Your task to perform on an android device: Do I have any events tomorrow? Image 0: 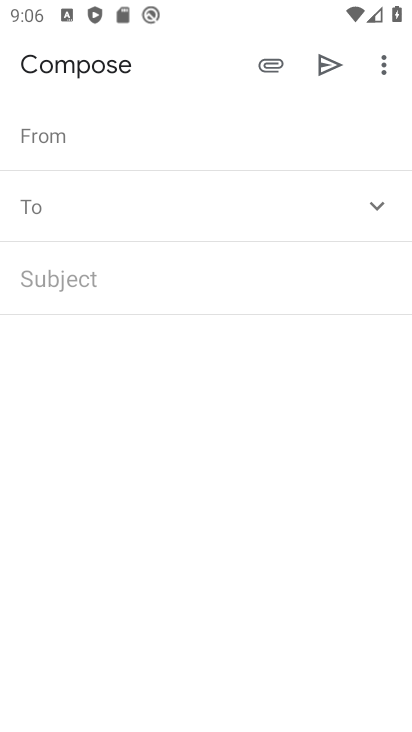
Step 0: drag from (363, 584) to (407, 328)
Your task to perform on an android device: Do I have any events tomorrow? Image 1: 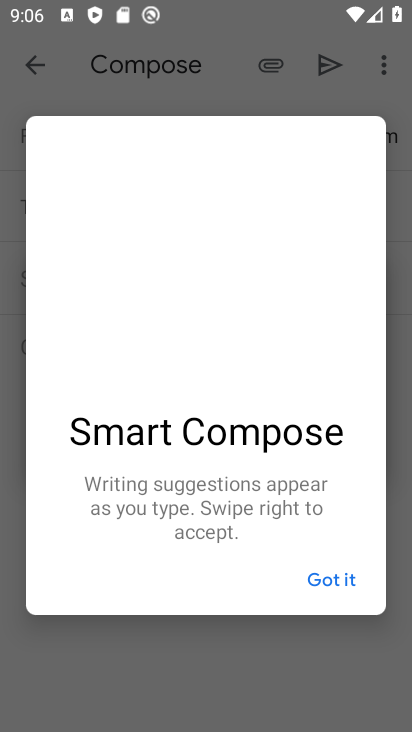
Step 1: press home button
Your task to perform on an android device: Do I have any events tomorrow? Image 2: 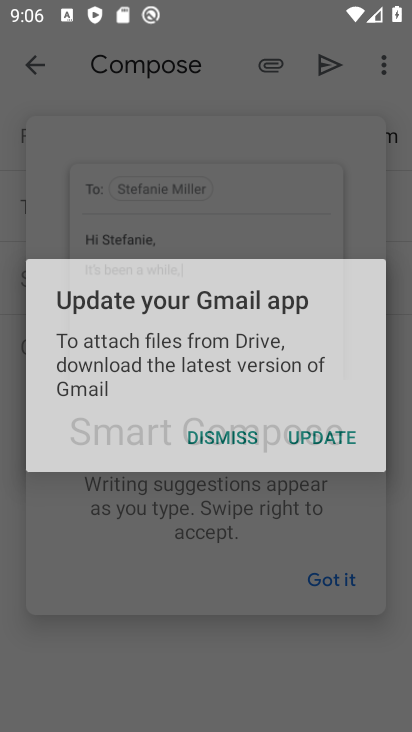
Step 2: drag from (407, 328) to (375, 249)
Your task to perform on an android device: Do I have any events tomorrow? Image 3: 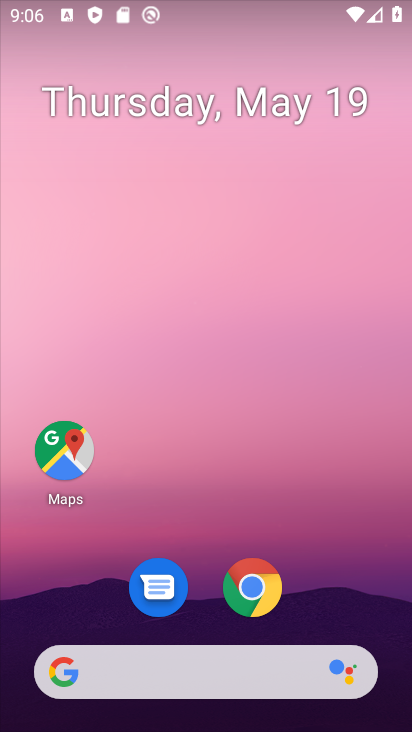
Step 3: drag from (316, 274) to (322, 5)
Your task to perform on an android device: Do I have any events tomorrow? Image 4: 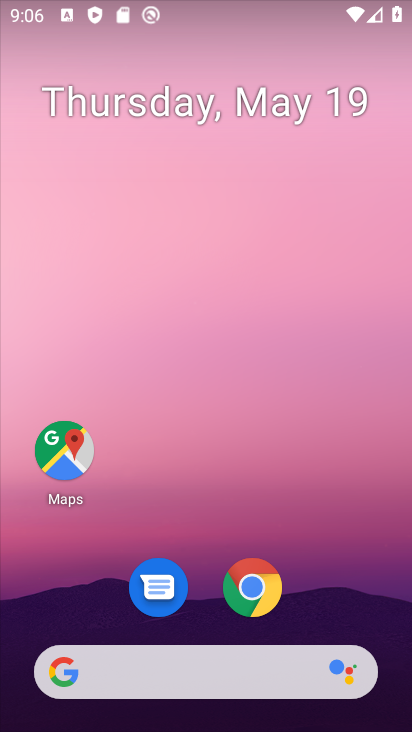
Step 4: drag from (357, 563) to (333, 28)
Your task to perform on an android device: Do I have any events tomorrow? Image 5: 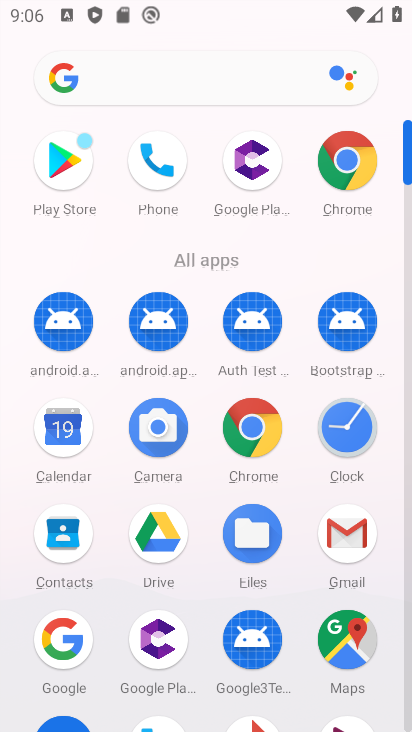
Step 5: click (356, 438)
Your task to perform on an android device: Do I have any events tomorrow? Image 6: 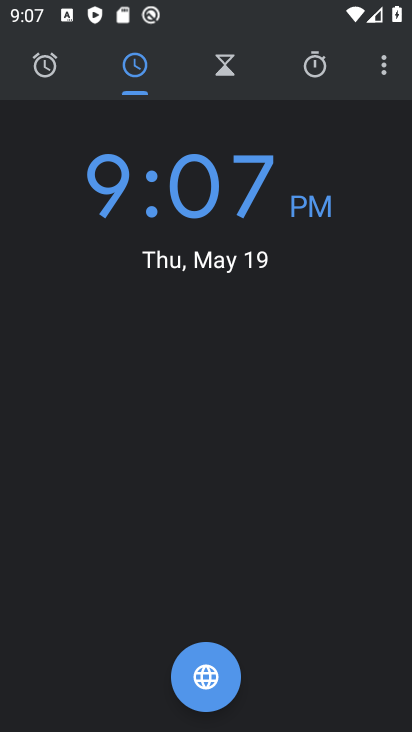
Step 6: press home button
Your task to perform on an android device: Do I have any events tomorrow? Image 7: 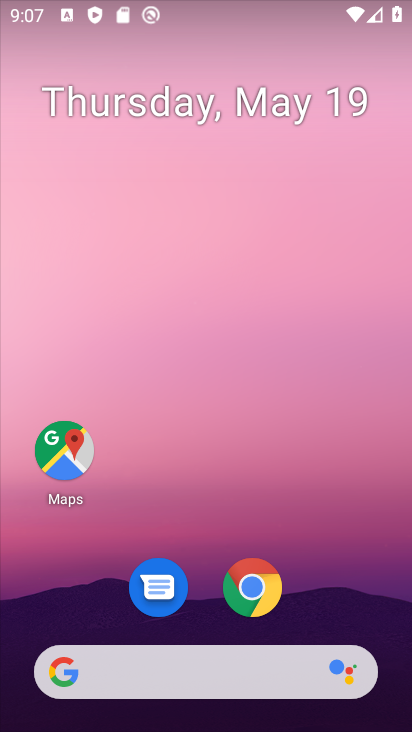
Step 7: drag from (362, 569) to (351, 60)
Your task to perform on an android device: Do I have any events tomorrow? Image 8: 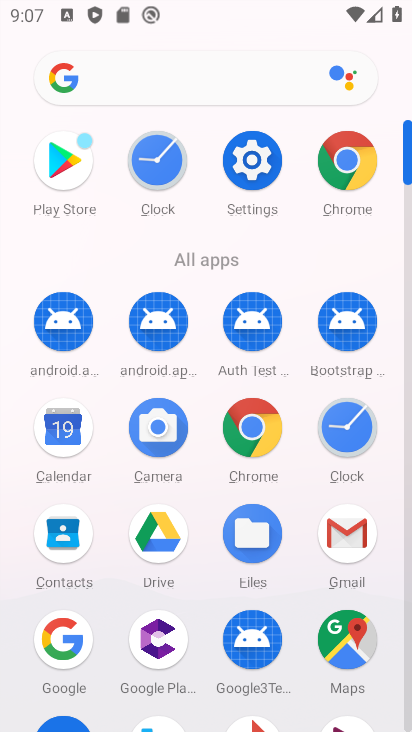
Step 8: click (49, 456)
Your task to perform on an android device: Do I have any events tomorrow? Image 9: 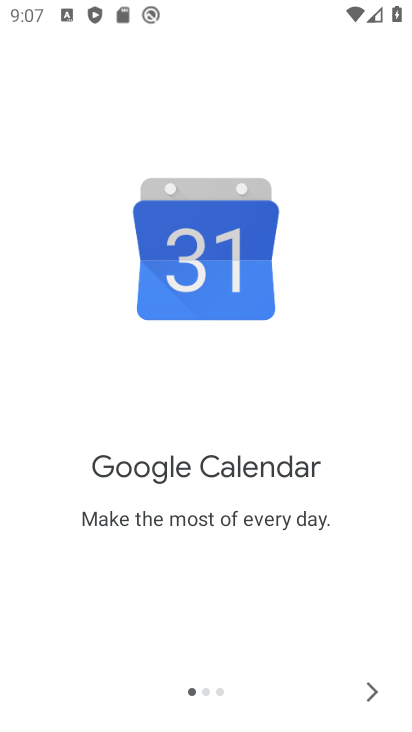
Step 9: click (363, 655)
Your task to perform on an android device: Do I have any events tomorrow? Image 10: 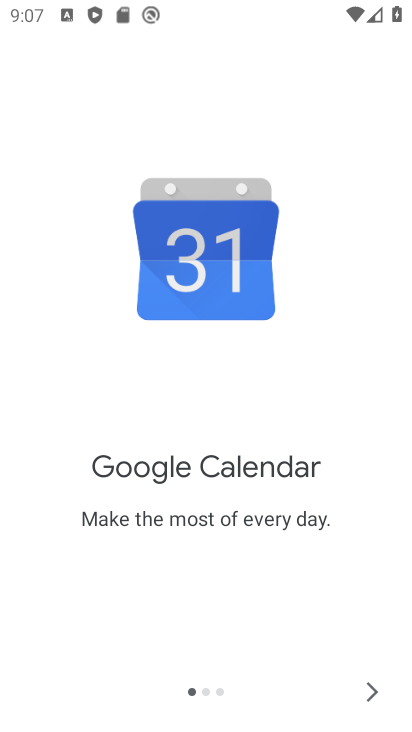
Step 10: click (365, 679)
Your task to perform on an android device: Do I have any events tomorrow? Image 11: 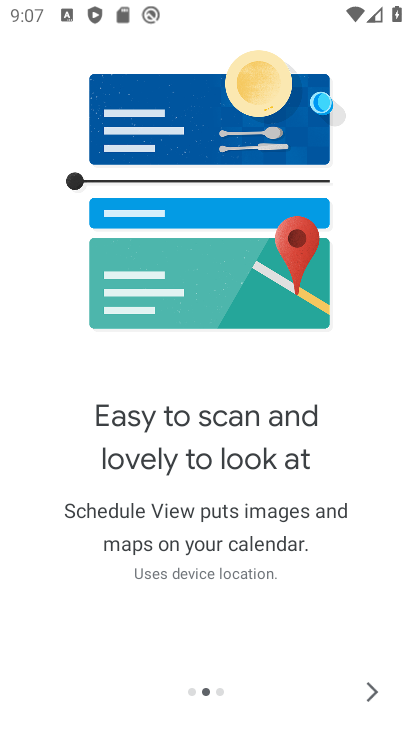
Step 11: click (382, 702)
Your task to perform on an android device: Do I have any events tomorrow? Image 12: 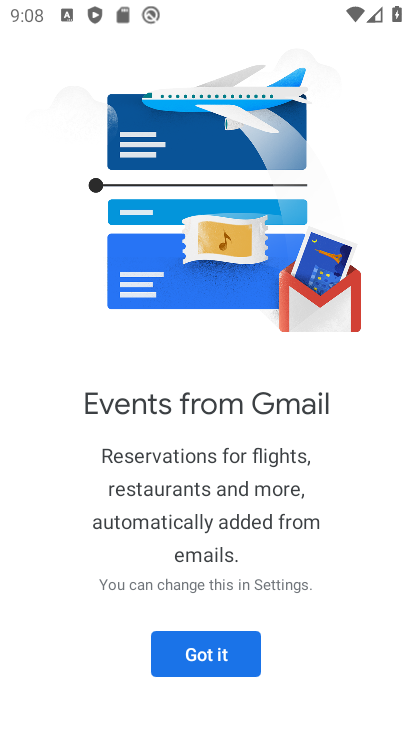
Step 12: click (204, 649)
Your task to perform on an android device: Do I have any events tomorrow? Image 13: 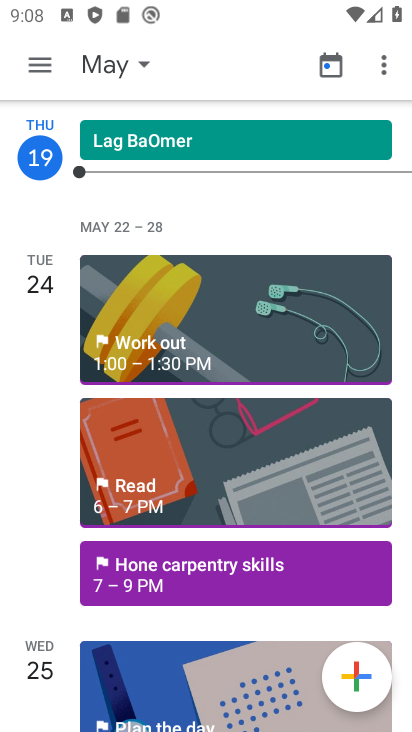
Step 13: click (131, 75)
Your task to perform on an android device: Do I have any events tomorrow? Image 14: 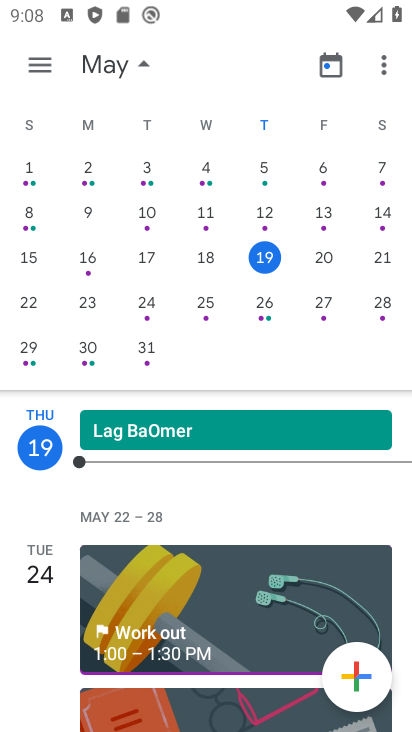
Step 14: click (325, 262)
Your task to perform on an android device: Do I have any events tomorrow? Image 15: 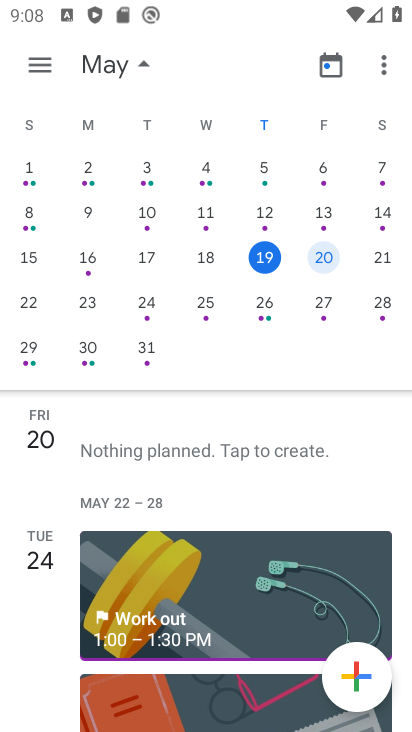
Step 15: task complete